Your task to perform on an android device: open wifi settings Image 0: 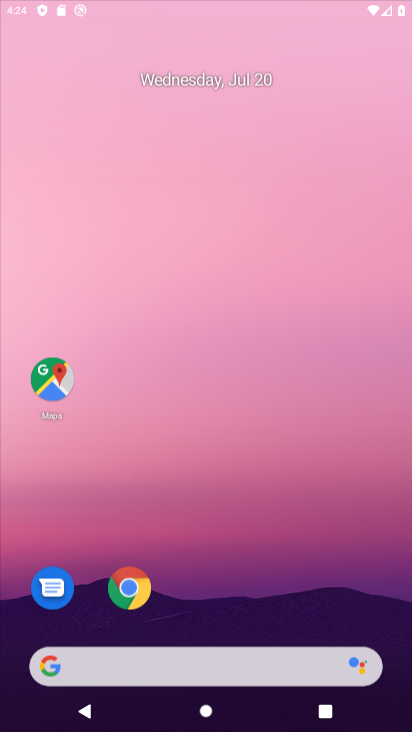
Step 0: press home button
Your task to perform on an android device: open wifi settings Image 1: 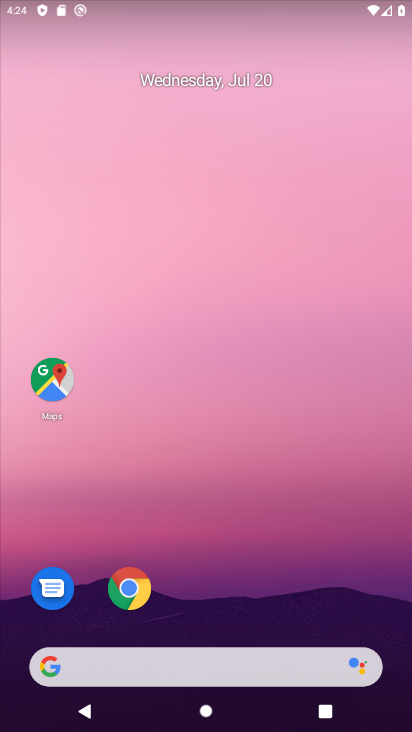
Step 1: drag from (230, 627) to (271, 36)
Your task to perform on an android device: open wifi settings Image 2: 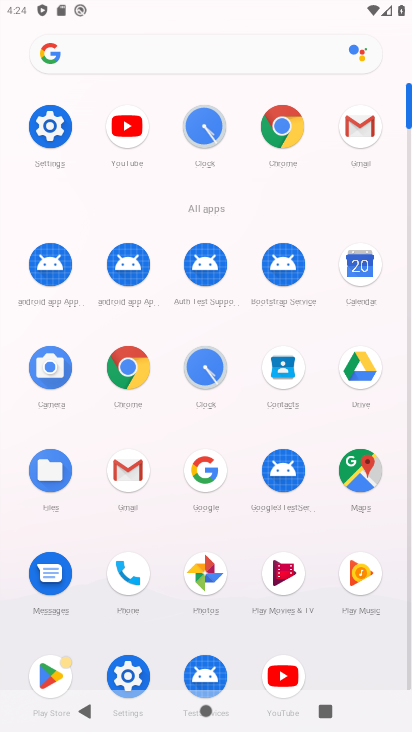
Step 2: click (46, 119)
Your task to perform on an android device: open wifi settings Image 3: 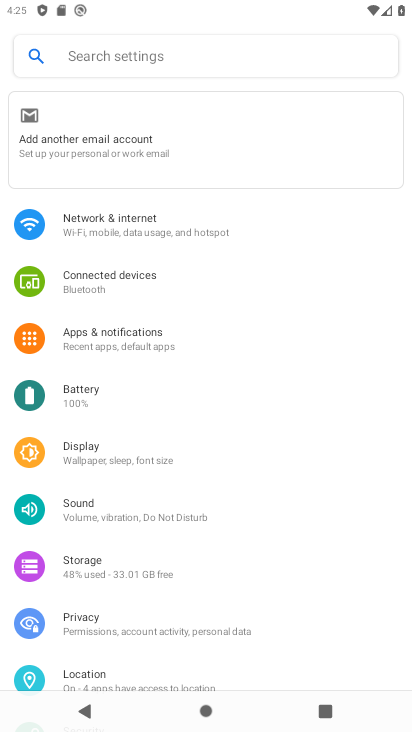
Step 3: click (141, 223)
Your task to perform on an android device: open wifi settings Image 4: 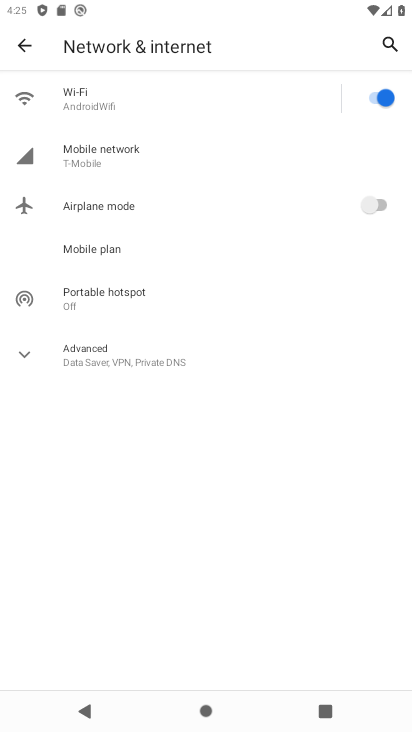
Step 4: click (183, 101)
Your task to perform on an android device: open wifi settings Image 5: 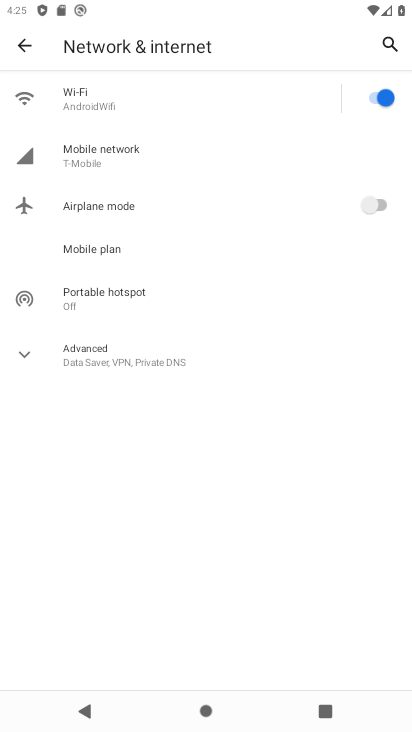
Step 5: task complete